Your task to perform on an android device: turn off translation in the chrome app Image 0: 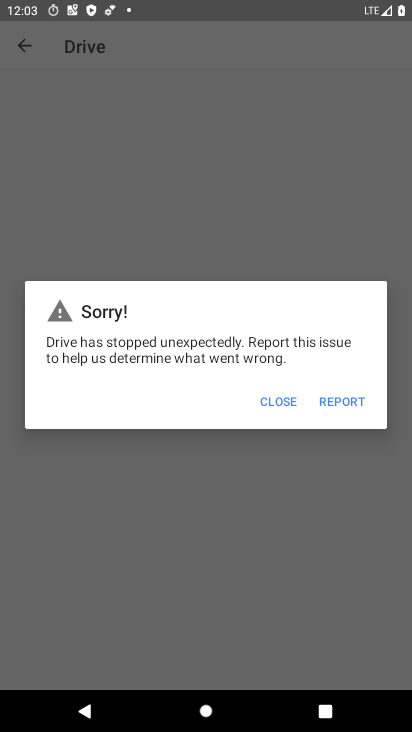
Step 0: press home button
Your task to perform on an android device: turn off translation in the chrome app Image 1: 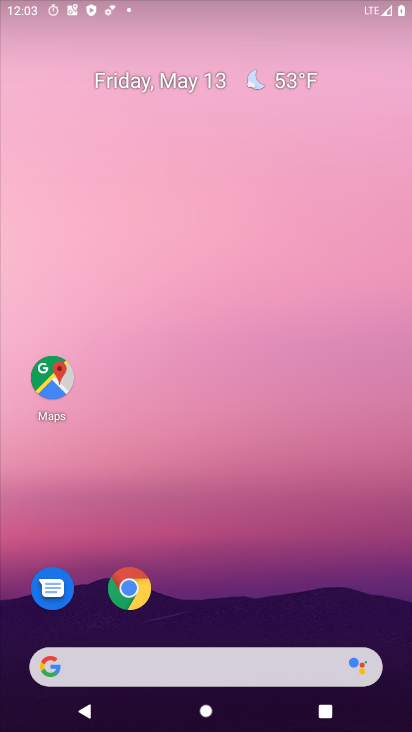
Step 1: drag from (352, 560) to (330, 29)
Your task to perform on an android device: turn off translation in the chrome app Image 2: 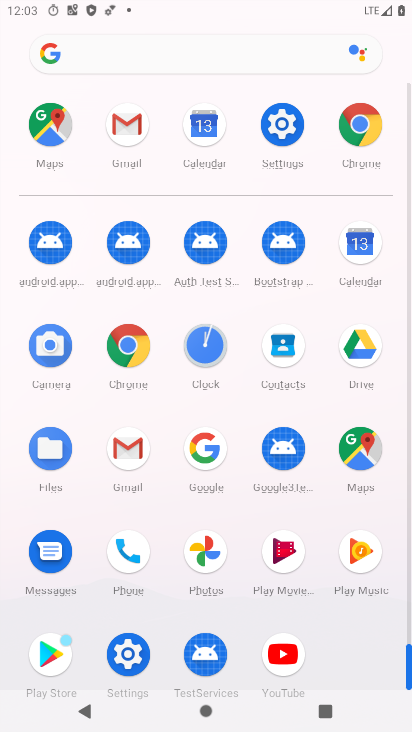
Step 2: click (131, 346)
Your task to perform on an android device: turn off translation in the chrome app Image 3: 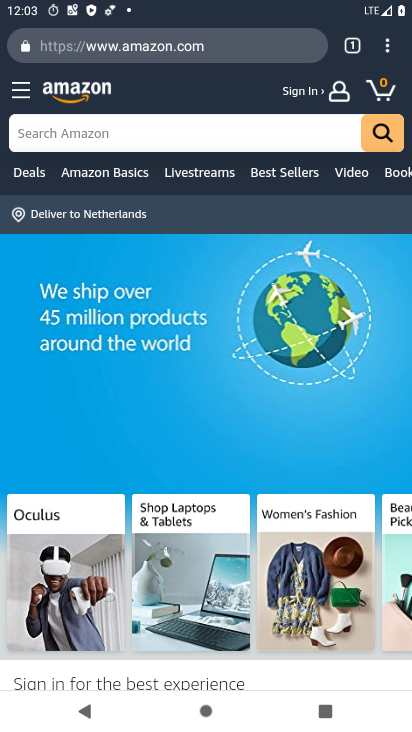
Step 3: drag from (386, 48) to (271, 538)
Your task to perform on an android device: turn off translation in the chrome app Image 4: 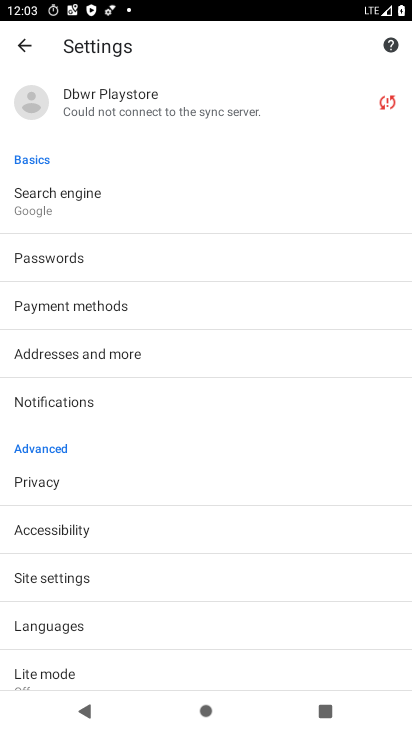
Step 4: drag from (133, 606) to (182, 387)
Your task to perform on an android device: turn off translation in the chrome app Image 5: 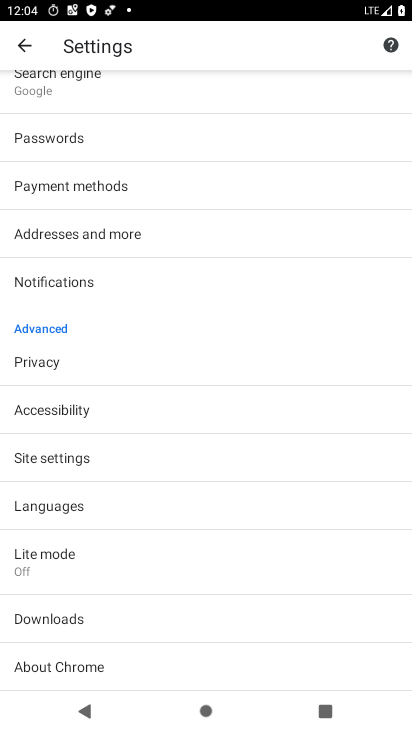
Step 5: click (78, 518)
Your task to perform on an android device: turn off translation in the chrome app Image 6: 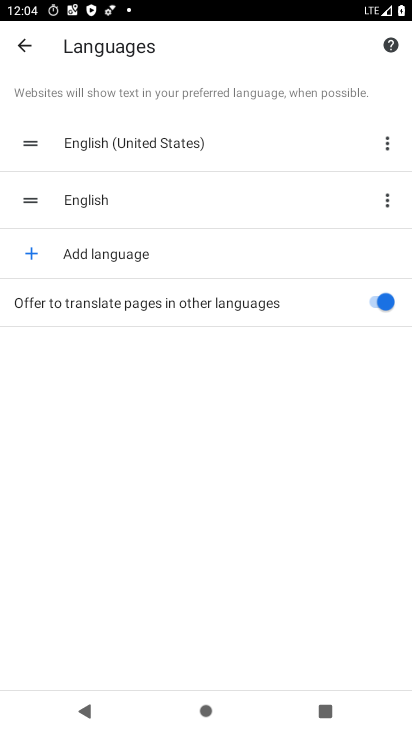
Step 6: click (385, 310)
Your task to perform on an android device: turn off translation in the chrome app Image 7: 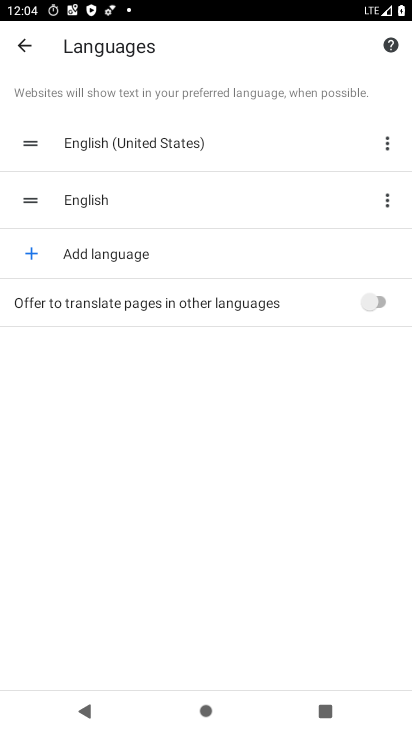
Step 7: task complete